Your task to perform on an android device: search for starred emails in the gmail app Image 0: 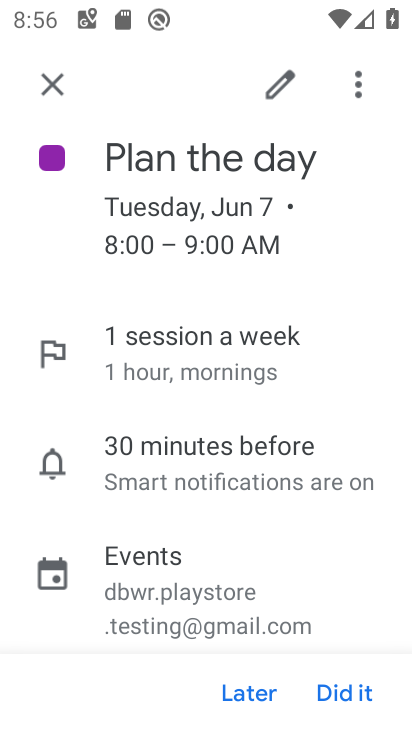
Step 0: press home button
Your task to perform on an android device: search for starred emails in the gmail app Image 1: 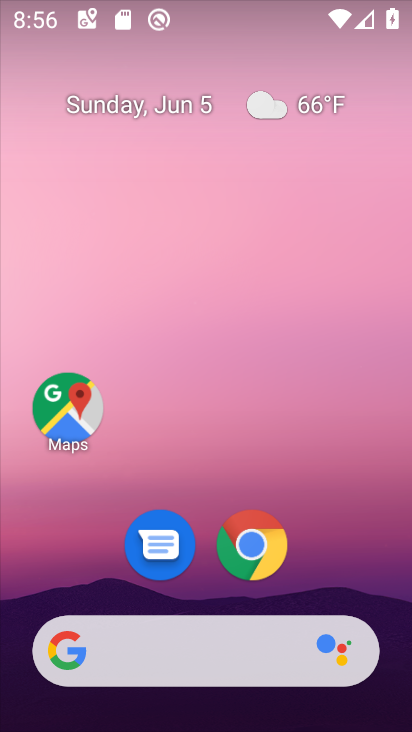
Step 1: drag from (360, 561) to (350, 197)
Your task to perform on an android device: search for starred emails in the gmail app Image 2: 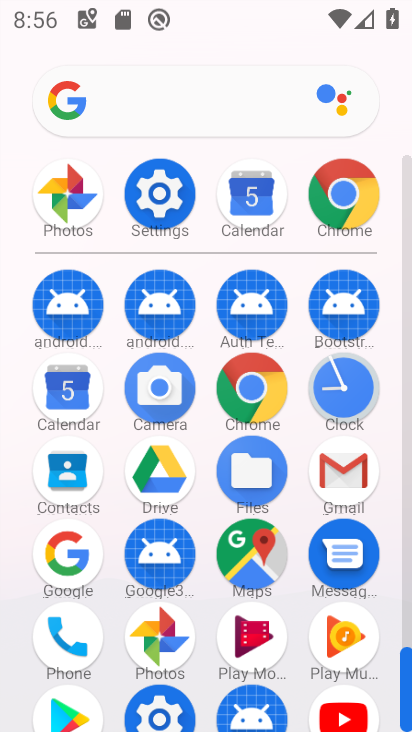
Step 2: click (367, 473)
Your task to perform on an android device: search for starred emails in the gmail app Image 3: 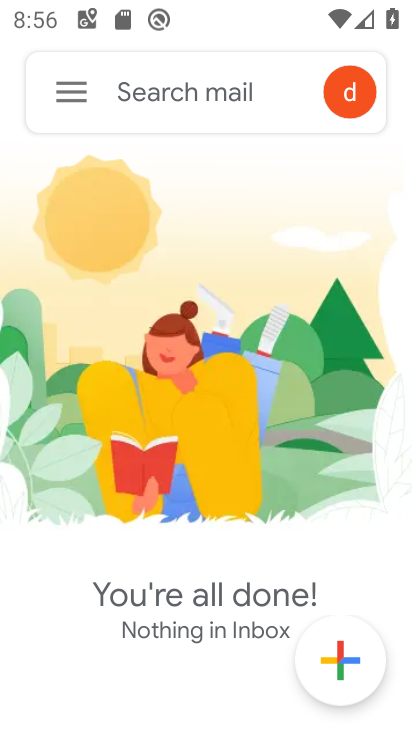
Step 3: click (80, 95)
Your task to perform on an android device: search for starred emails in the gmail app Image 4: 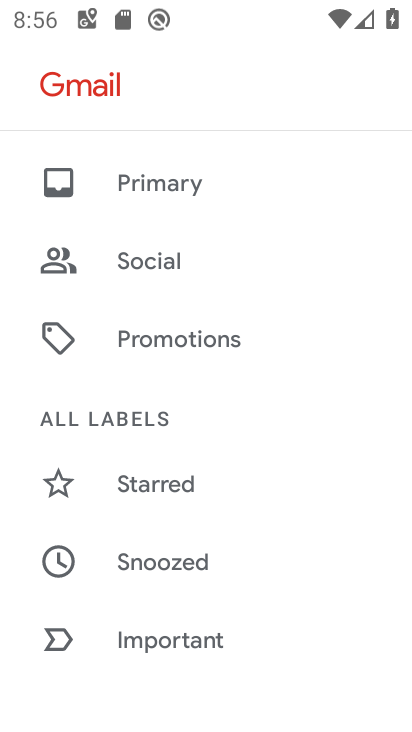
Step 4: drag from (324, 579) to (328, 460)
Your task to perform on an android device: search for starred emails in the gmail app Image 5: 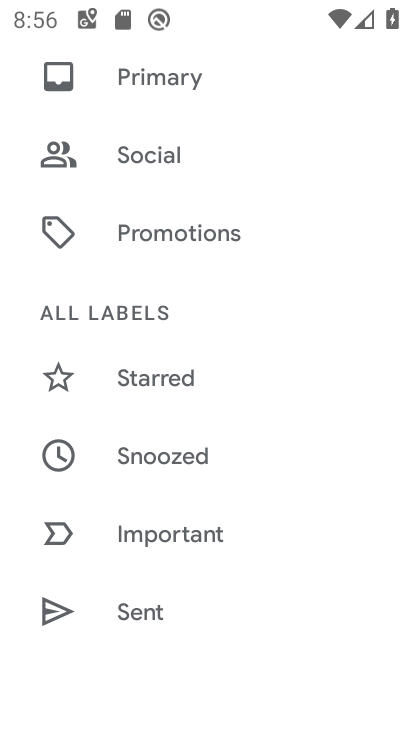
Step 5: drag from (343, 578) to (324, 387)
Your task to perform on an android device: search for starred emails in the gmail app Image 6: 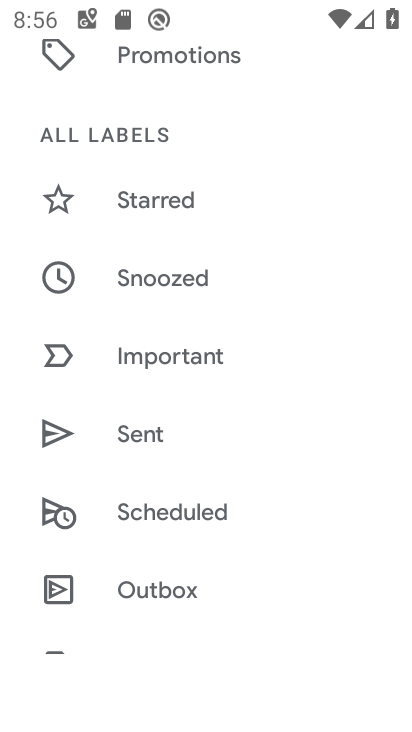
Step 6: drag from (336, 482) to (348, 297)
Your task to perform on an android device: search for starred emails in the gmail app Image 7: 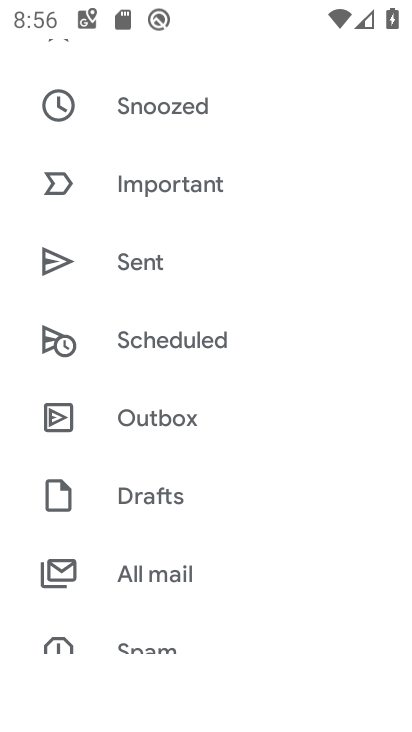
Step 7: drag from (318, 259) to (324, 368)
Your task to perform on an android device: search for starred emails in the gmail app Image 8: 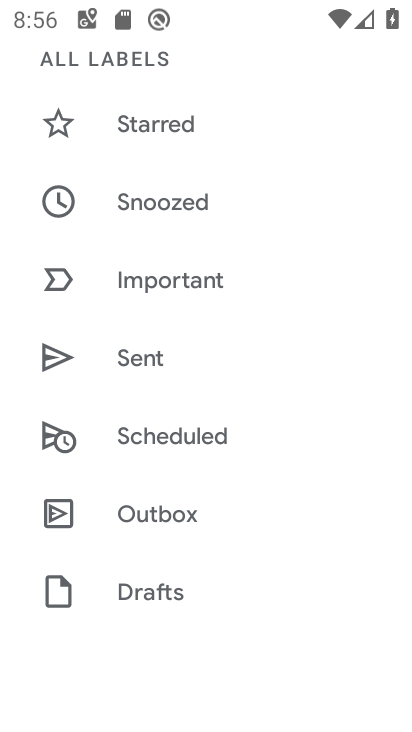
Step 8: drag from (317, 219) to (319, 384)
Your task to perform on an android device: search for starred emails in the gmail app Image 9: 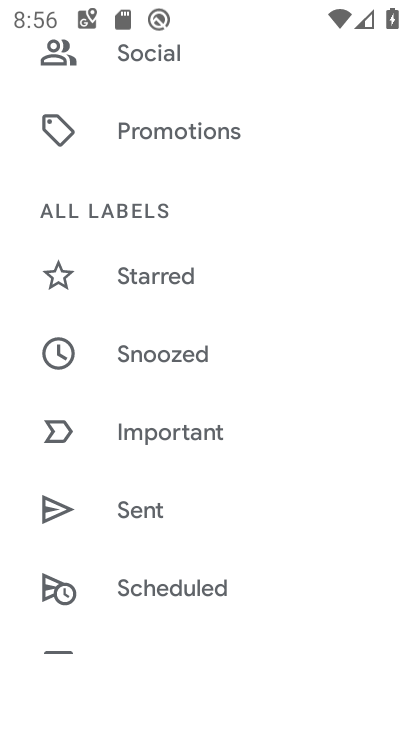
Step 9: click (188, 278)
Your task to perform on an android device: search for starred emails in the gmail app Image 10: 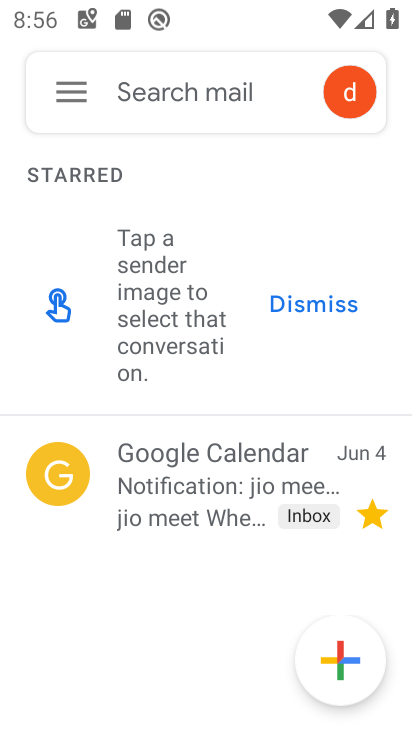
Step 10: task complete